Your task to perform on an android device: Search for Mexican restaurants on Maps Image 0: 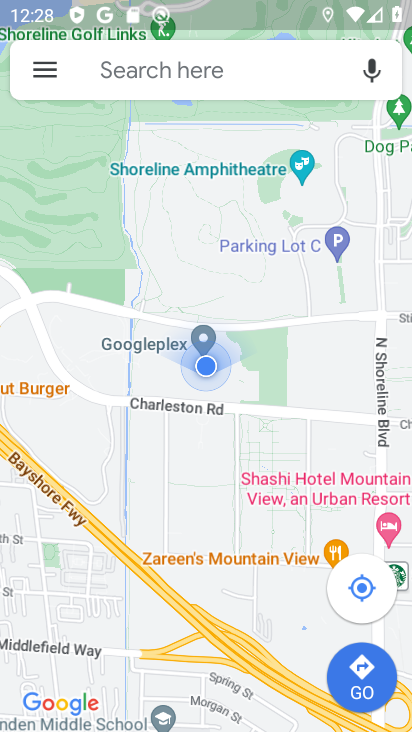
Step 0: click (133, 77)
Your task to perform on an android device: Search for Mexican restaurants on Maps Image 1: 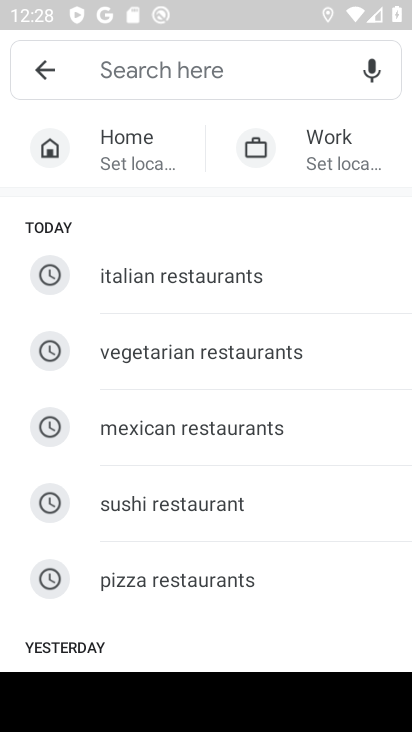
Step 1: type "mexican restaurant"
Your task to perform on an android device: Search for Mexican restaurants on Maps Image 2: 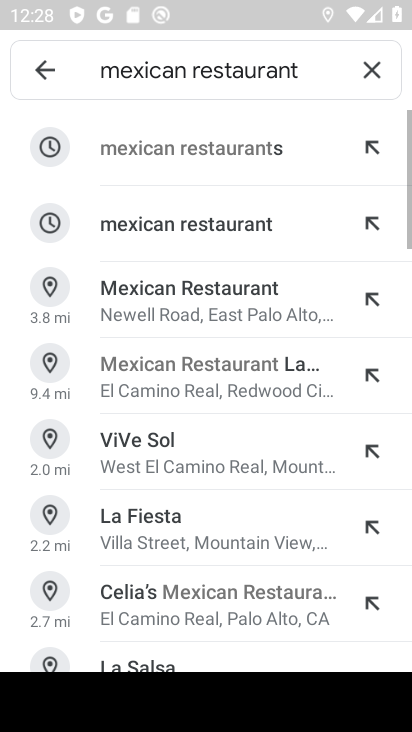
Step 2: click (276, 152)
Your task to perform on an android device: Search for Mexican restaurants on Maps Image 3: 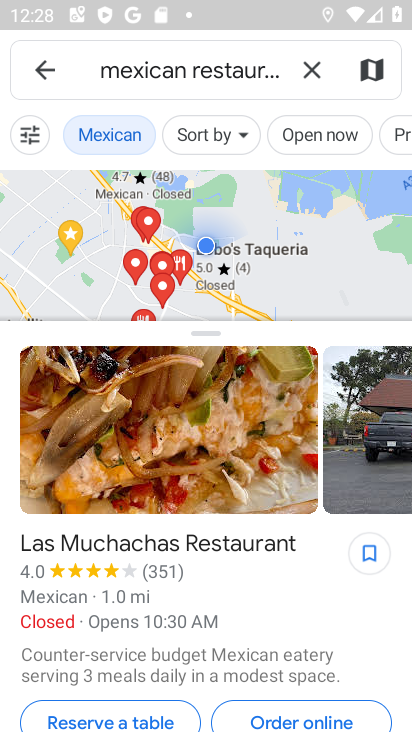
Step 3: task complete